Your task to perform on an android device: snooze an email in the gmail app Image 0: 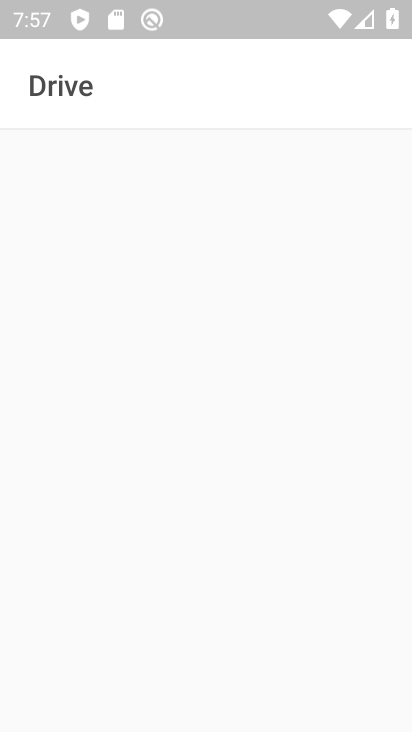
Step 0: click (383, 386)
Your task to perform on an android device: snooze an email in the gmail app Image 1: 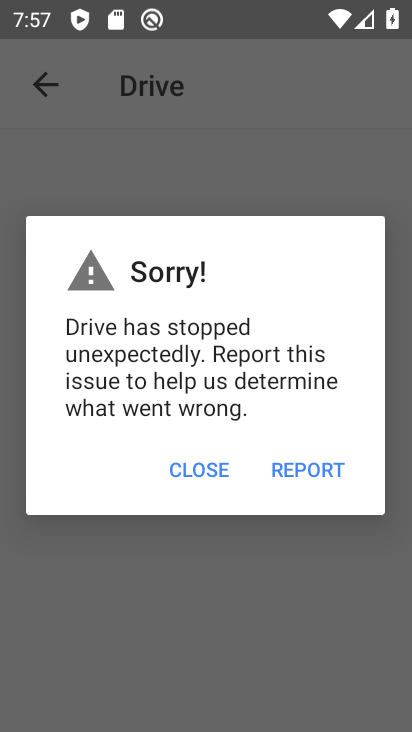
Step 1: press home button
Your task to perform on an android device: snooze an email in the gmail app Image 2: 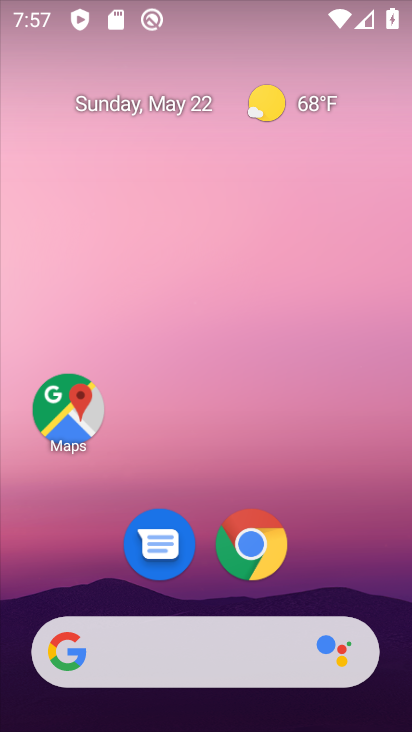
Step 2: drag from (394, 667) to (388, 111)
Your task to perform on an android device: snooze an email in the gmail app Image 3: 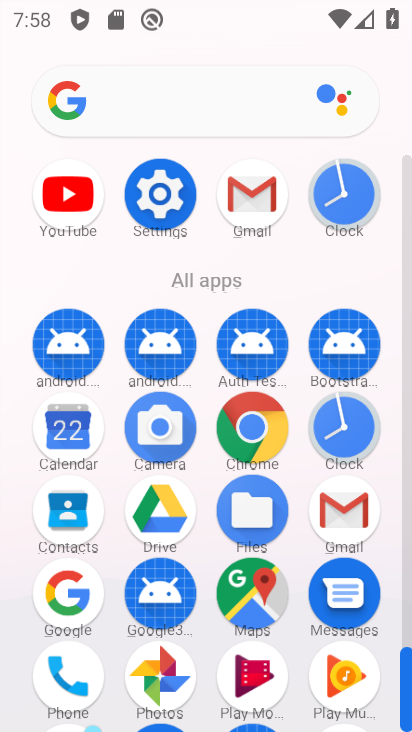
Step 3: click (336, 511)
Your task to perform on an android device: snooze an email in the gmail app Image 4: 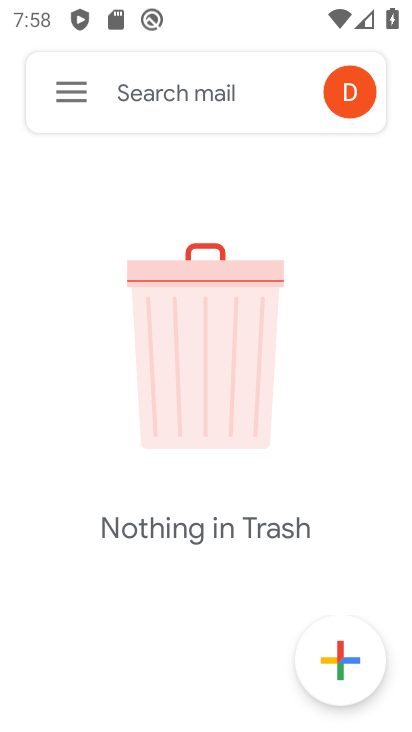
Step 4: press back button
Your task to perform on an android device: snooze an email in the gmail app Image 5: 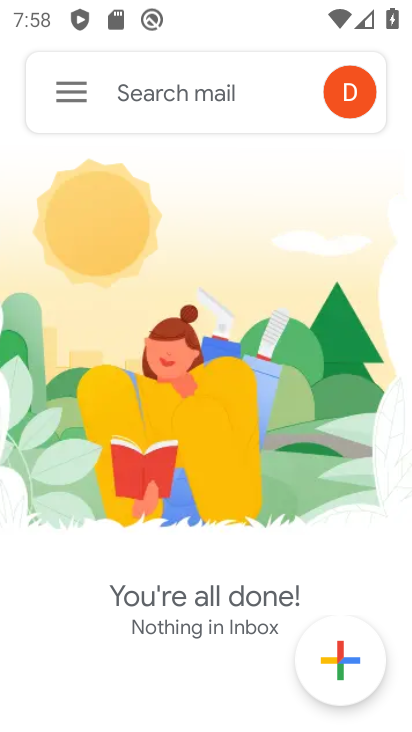
Step 5: press back button
Your task to perform on an android device: snooze an email in the gmail app Image 6: 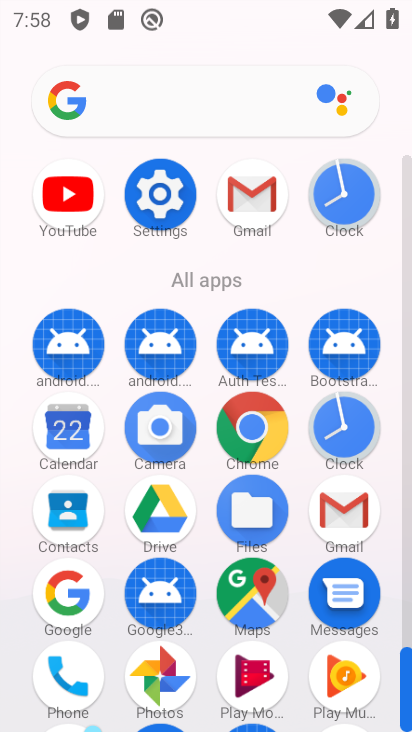
Step 6: click (139, 197)
Your task to perform on an android device: snooze an email in the gmail app Image 7: 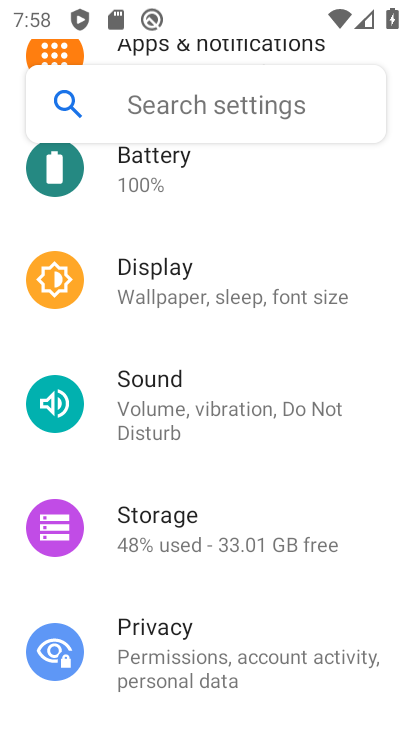
Step 7: press back button
Your task to perform on an android device: snooze an email in the gmail app Image 8: 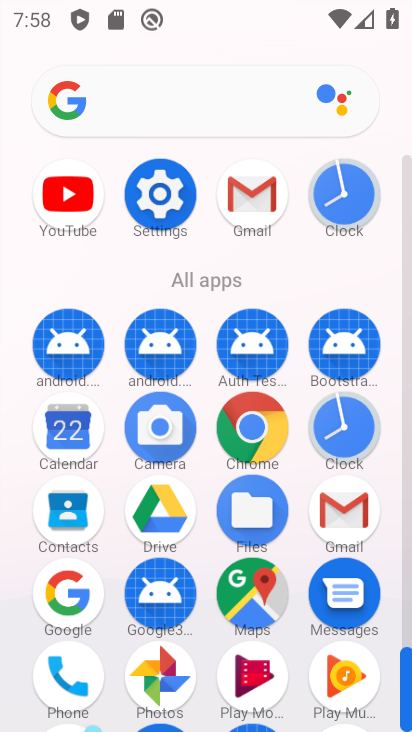
Step 8: click (345, 512)
Your task to perform on an android device: snooze an email in the gmail app Image 9: 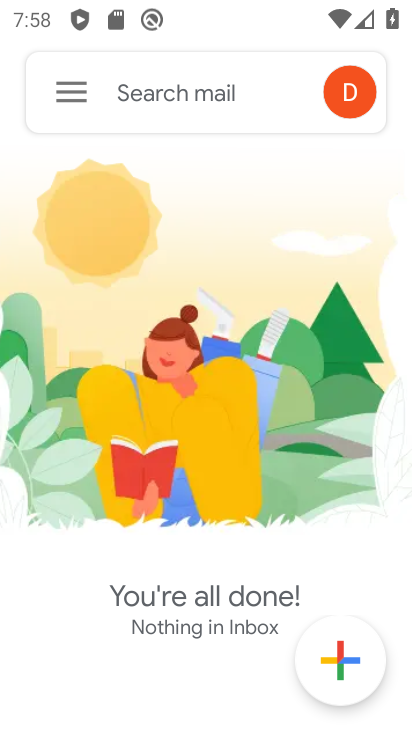
Step 9: click (62, 96)
Your task to perform on an android device: snooze an email in the gmail app Image 10: 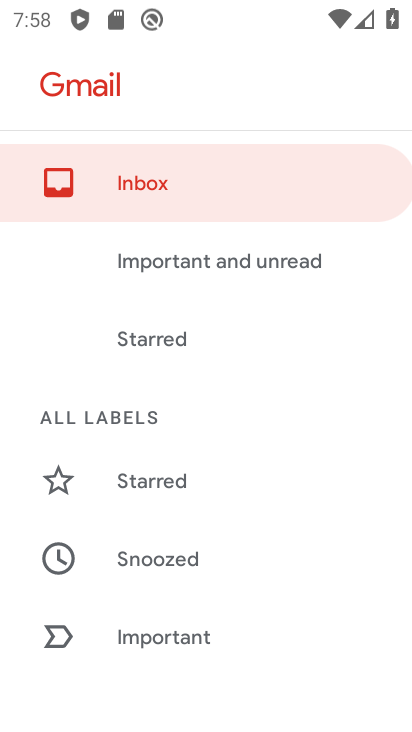
Step 10: drag from (293, 649) to (294, 399)
Your task to perform on an android device: snooze an email in the gmail app Image 11: 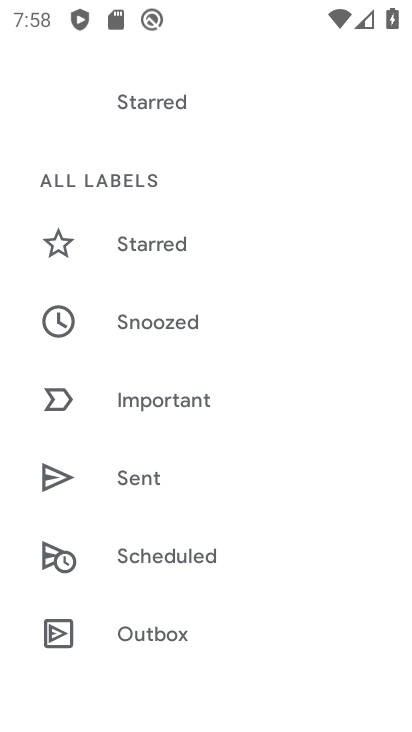
Step 11: click (322, 165)
Your task to perform on an android device: snooze an email in the gmail app Image 12: 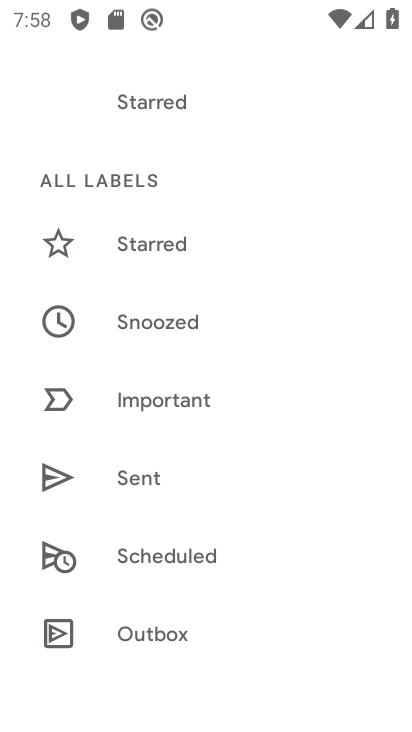
Step 12: drag from (335, 116) to (273, 542)
Your task to perform on an android device: snooze an email in the gmail app Image 13: 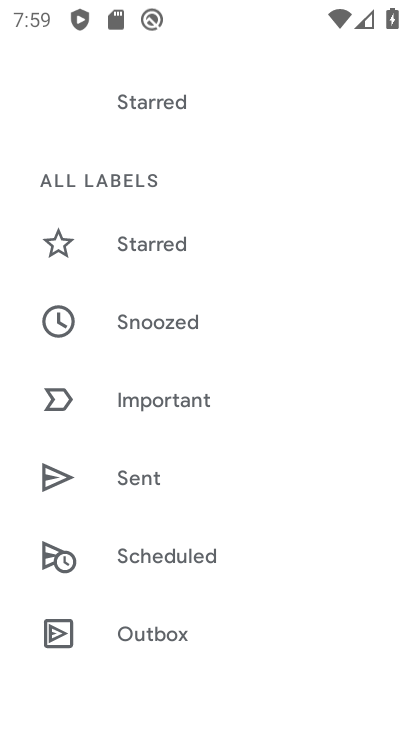
Step 13: drag from (359, 158) to (206, 630)
Your task to perform on an android device: snooze an email in the gmail app Image 14: 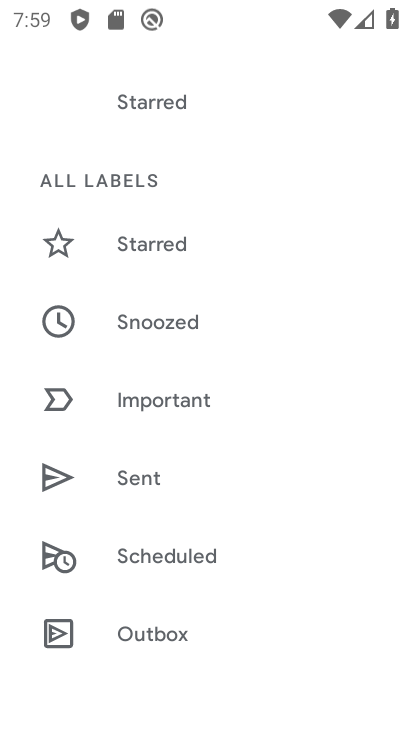
Step 14: drag from (321, 121) to (277, 657)
Your task to perform on an android device: snooze an email in the gmail app Image 15: 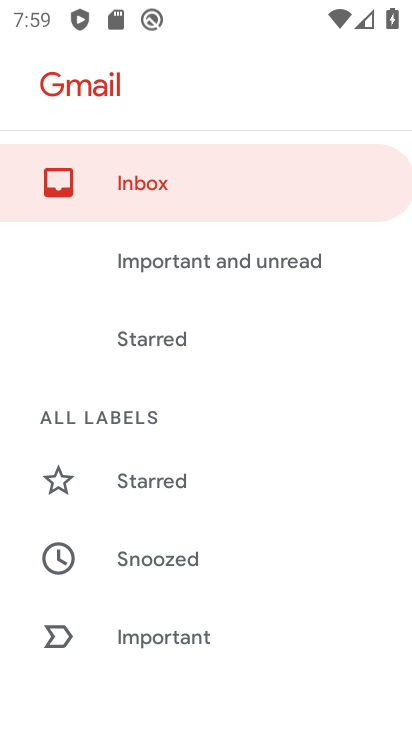
Step 15: click (154, 178)
Your task to perform on an android device: snooze an email in the gmail app Image 16: 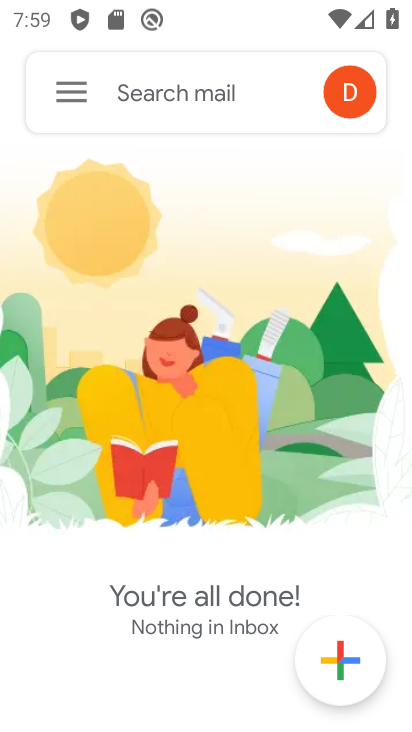
Step 16: task complete